Your task to perform on an android device: Show the shopping cart on ebay. Image 0: 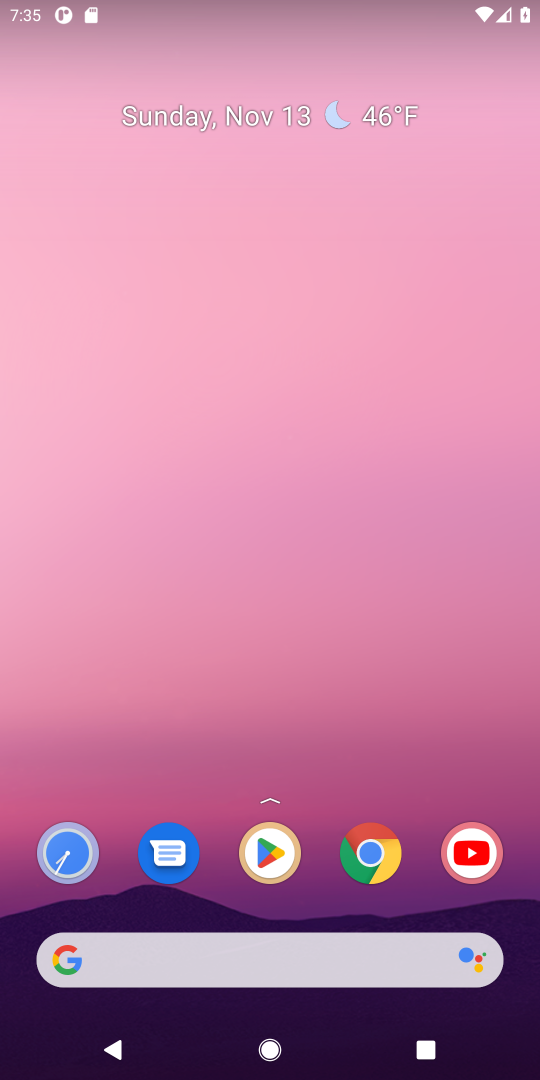
Step 0: press home button
Your task to perform on an android device: Show the shopping cart on ebay. Image 1: 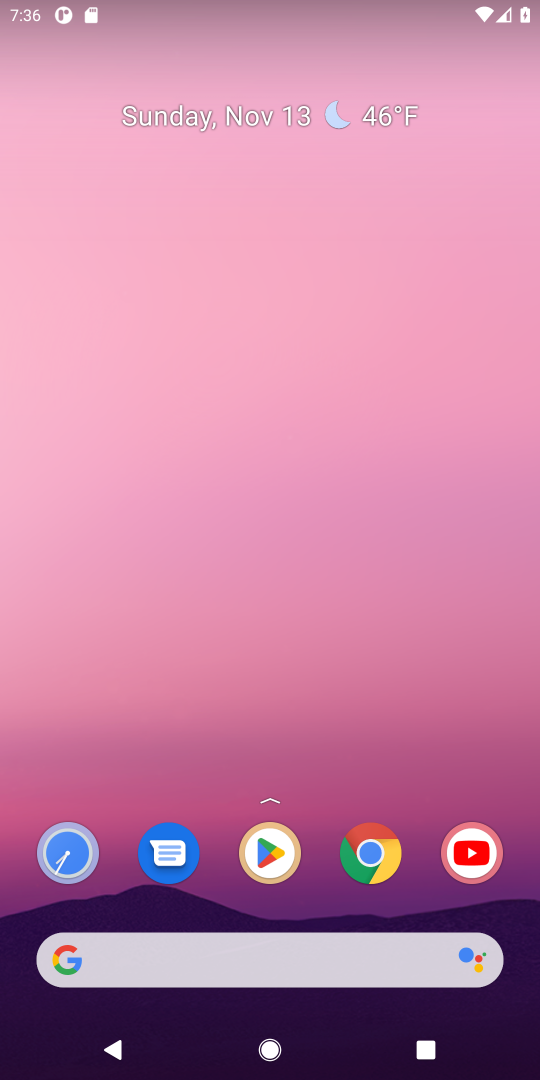
Step 1: click (97, 952)
Your task to perform on an android device: Show the shopping cart on ebay. Image 2: 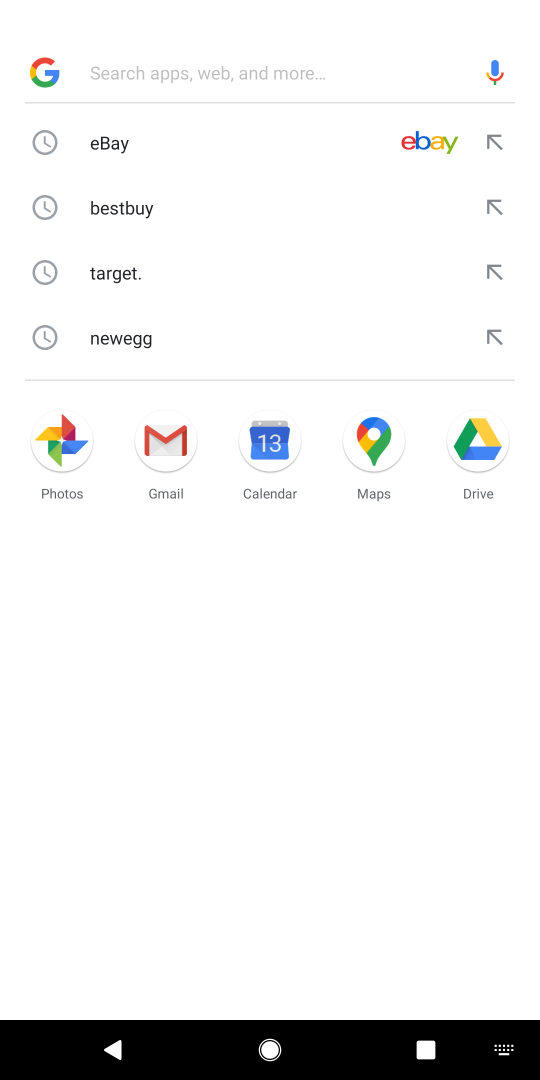
Step 2: click (125, 144)
Your task to perform on an android device: Show the shopping cart on ebay. Image 3: 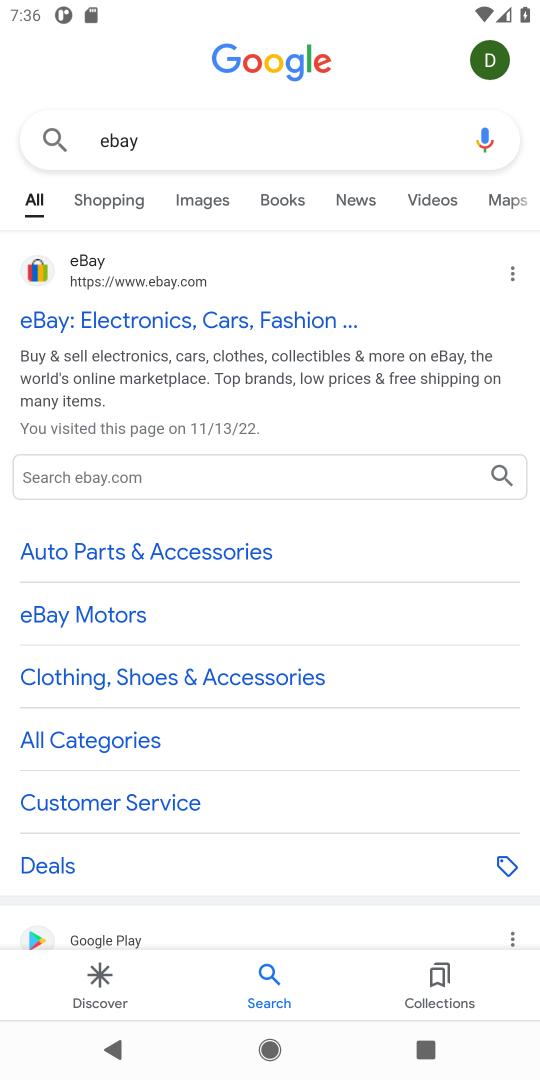
Step 3: click (155, 319)
Your task to perform on an android device: Show the shopping cart on ebay. Image 4: 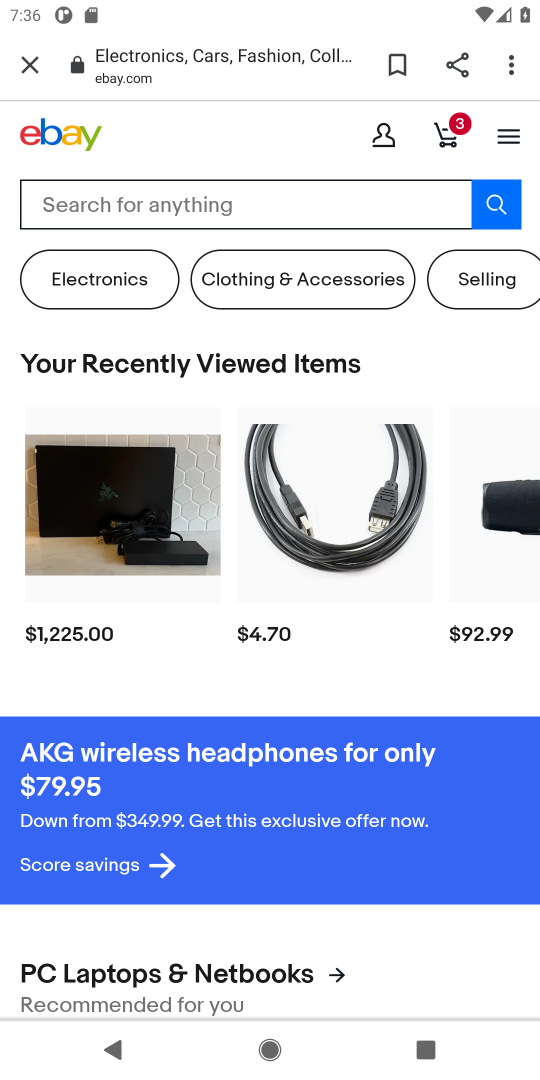
Step 4: click (449, 127)
Your task to perform on an android device: Show the shopping cart on ebay. Image 5: 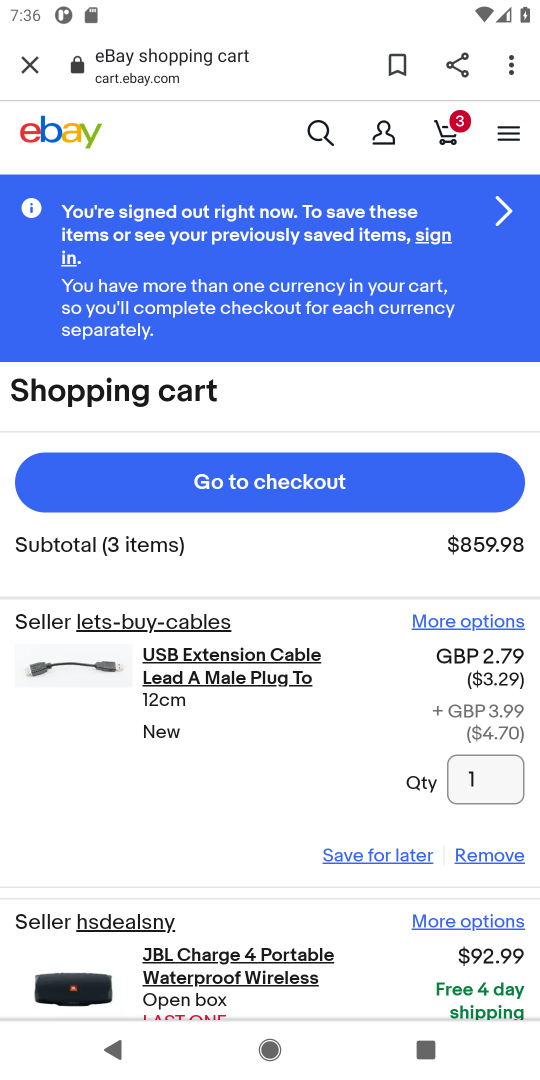
Step 5: task complete